Your task to perform on an android device: allow cookies in the chrome app Image 0: 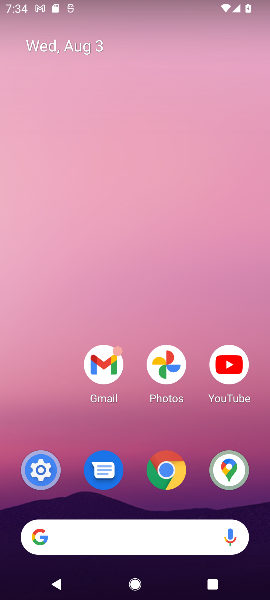
Step 0: click (165, 467)
Your task to perform on an android device: allow cookies in the chrome app Image 1: 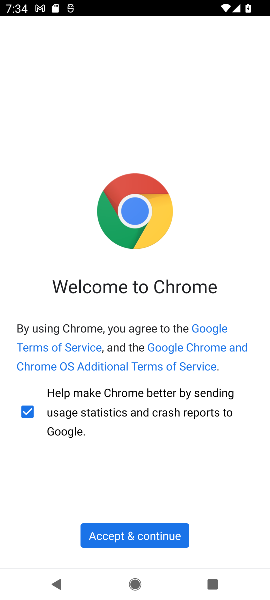
Step 1: click (127, 536)
Your task to perform on an android device: allow cookies in the chrome app Image 2: 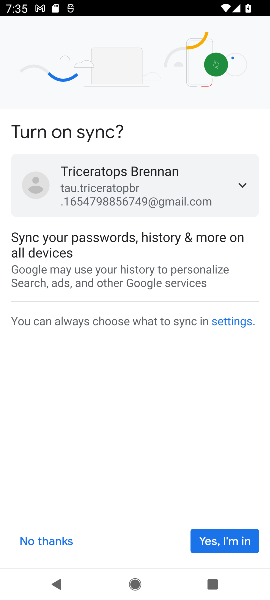
Step 2: click (227, 545)
Your task to perform on an android device: allow cookies in the chrome app Image 3: 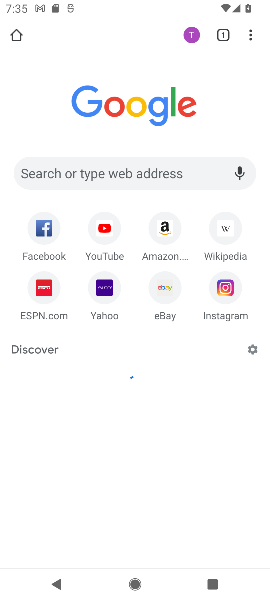
Step 3: click (245, 33)
Your task to perform on an android device: allow cookies in the chrome app Image 4: 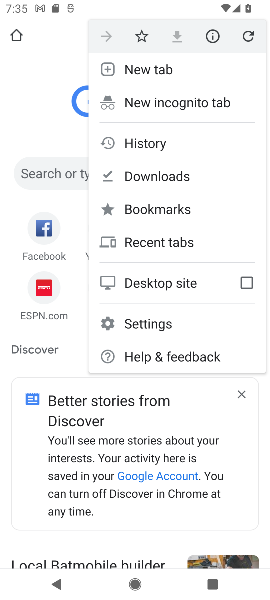
Step 4: click (172, 327)
Your task to perform on an android device: allow cookies in the chrome app Image 5: 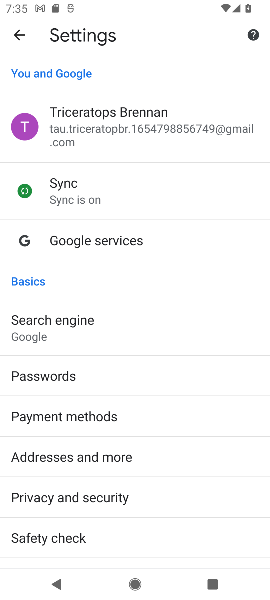
Step 5: click (117, 185)
Your task to perform on an android device: allow cookies in the chrome app Image 6: 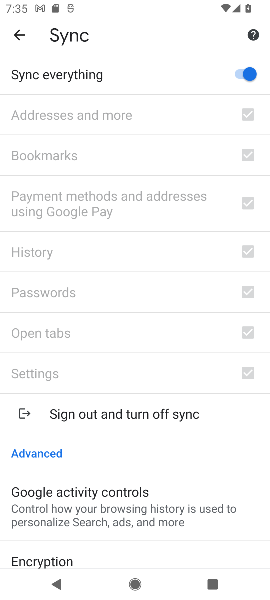
Step 6: click (25, 38)
Your task to perform on an android device: allow cookies in the chrome app Image 7: 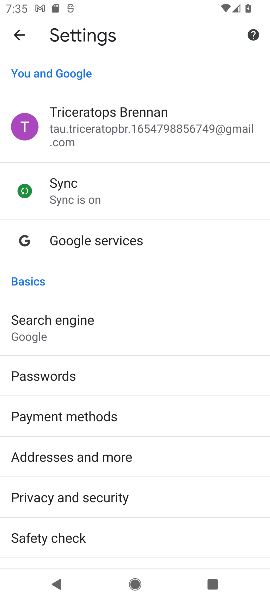
Step 7: drag from (117, 515) to (126, 195)
Your task to perform on an android device: allow cookies in the chrome app Image 8: 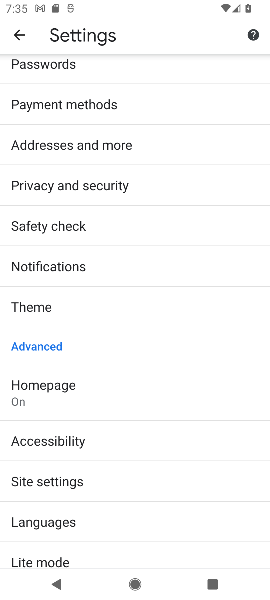
Step 8: click (98, 483)
Your task to perform on an android device: allow cookies in the chrome app Image 9: 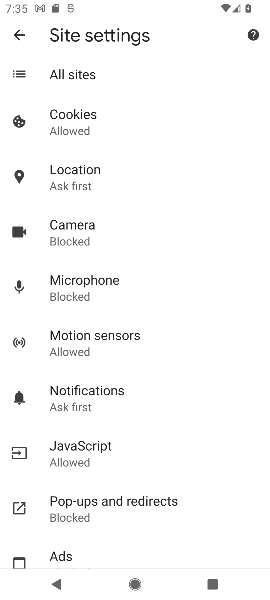
Step 9: click (99, 121)
Your task to perform on an android device: allow cookies in the chrome app Image 10: 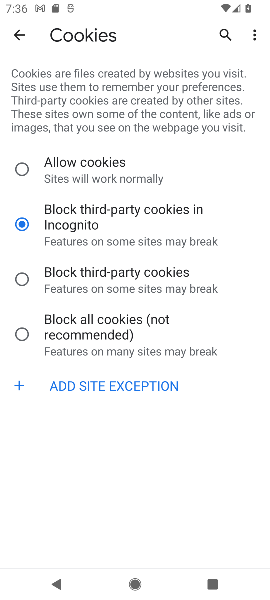
Step 10: click (21, 164)
Your task to perform on an android device: allow cookies in the chrome app Image 11: 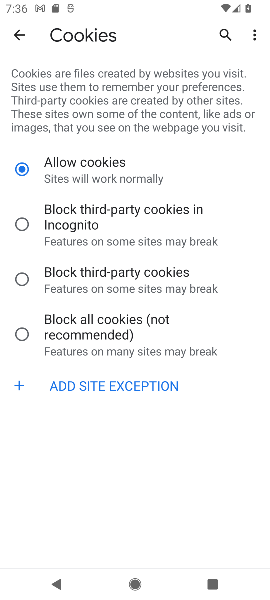
Step 11: task complete